Your task to perform on an android device: Go to wifi settings Image 0: 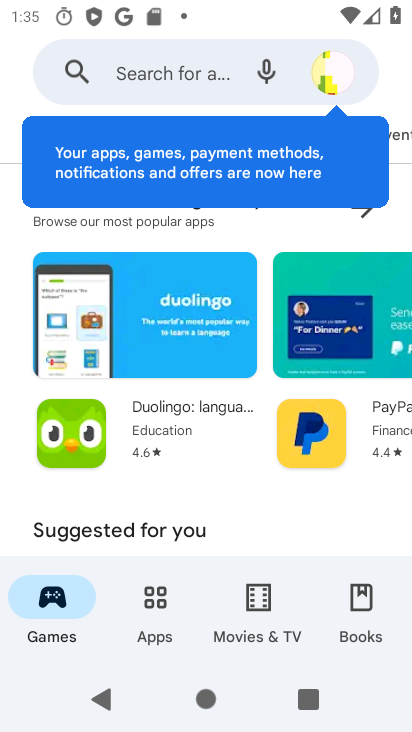
Step 0: press home button
Your task to perform on an android device: Go to wifi settings Image 1: 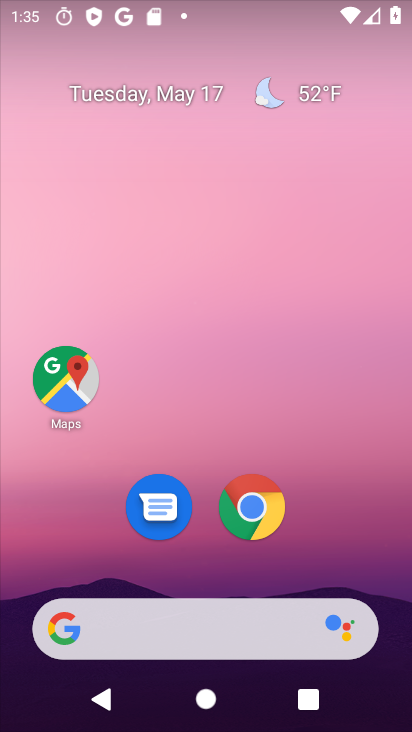
Step 1: drag from (202, 505) to (239, 133)
Your task to perform on an android device: Go to wifi settings Image 2: 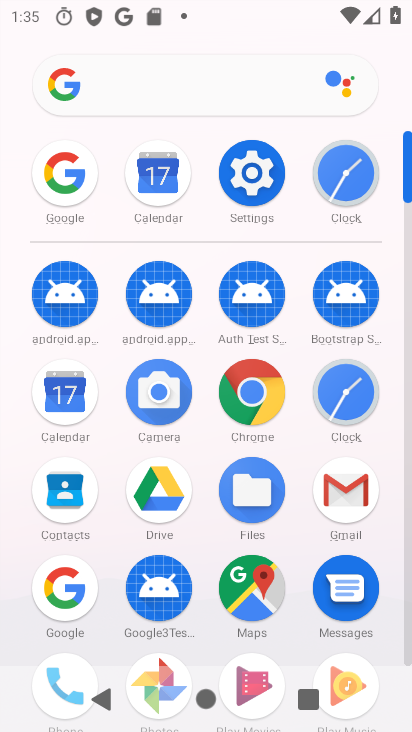
Step 2: click (249, 178)
Your task to perform on an android device: Go to wifi settings Image 3: 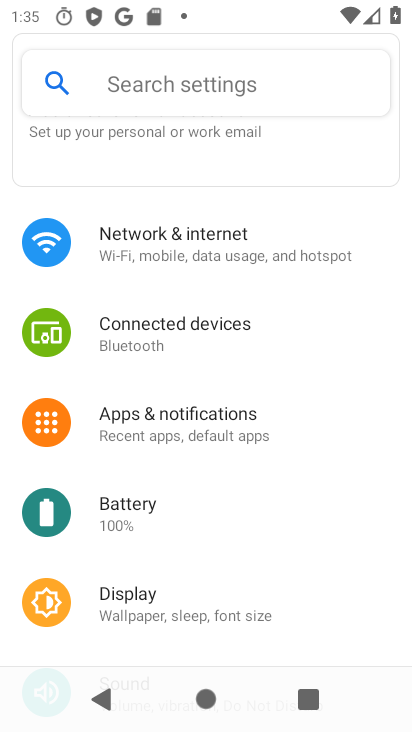
Step 3: click (212, 245)
Your task to perform on an android device: Go to wifi settings Image 4: 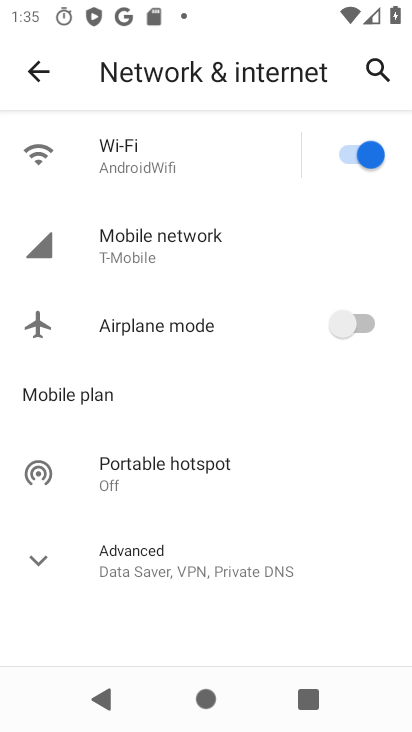
Step 4: click (203, 157)
Your task to perform on an android device: Go to wifi settings Image 5: 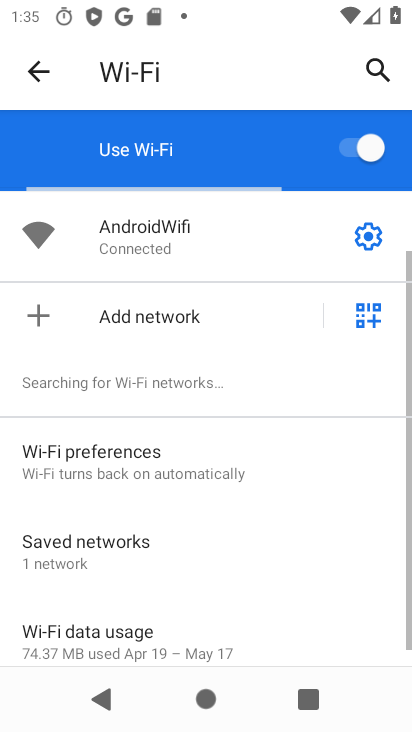
Step 5: click (361, 238)
Your task to perform on an android device: Go to wifi settings Image 6: 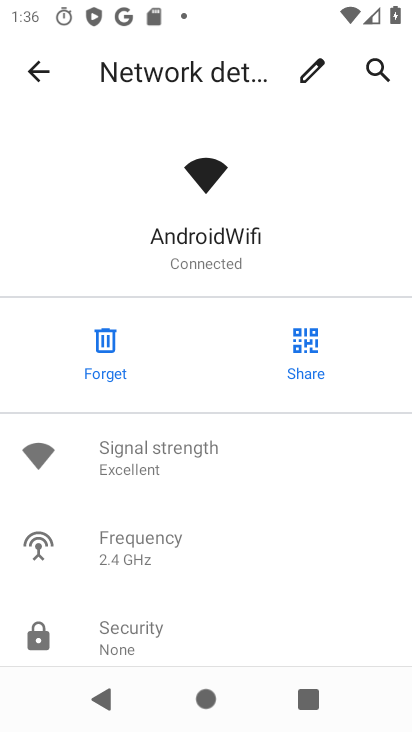
Step 6: task complete